Your task to perform on an android device: Open internet settings Image 0: 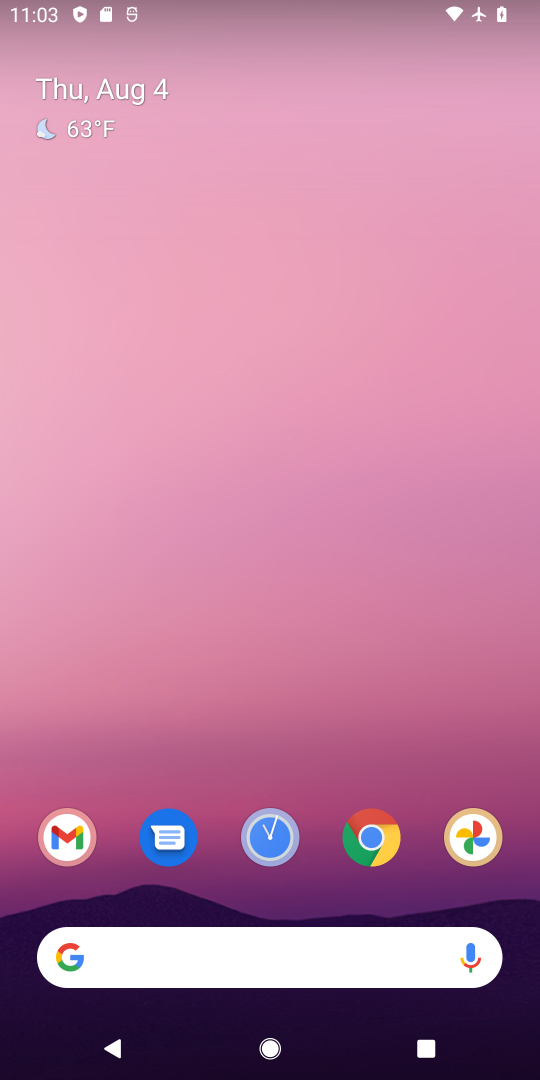
Step 0: press home button
Your task to perform on an android device: Open internet settings Image 1: 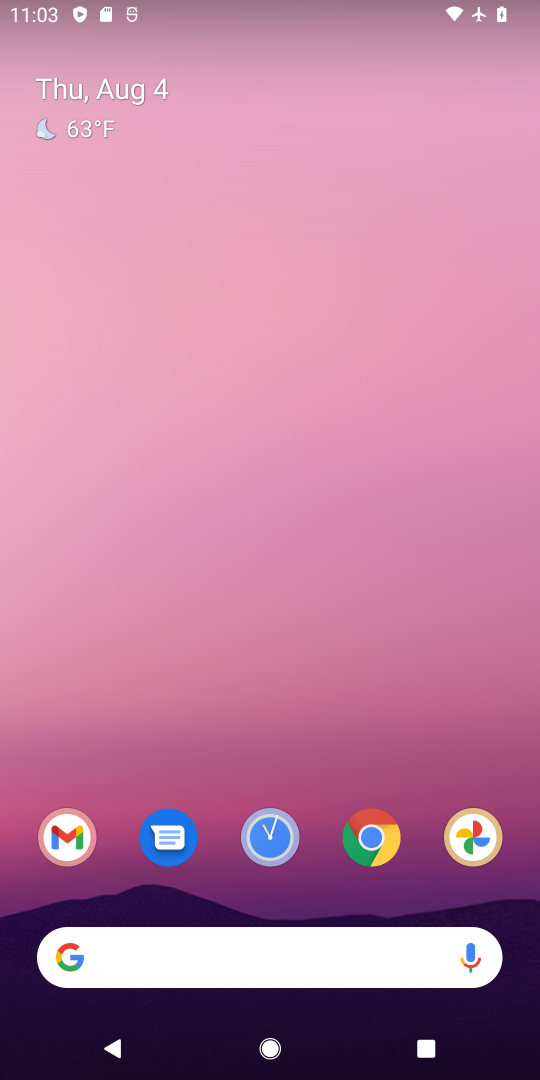
Step 1: drag from (324, 890) to (397, 68)
Your task to perform on an android device: Open internet settings Image 2: 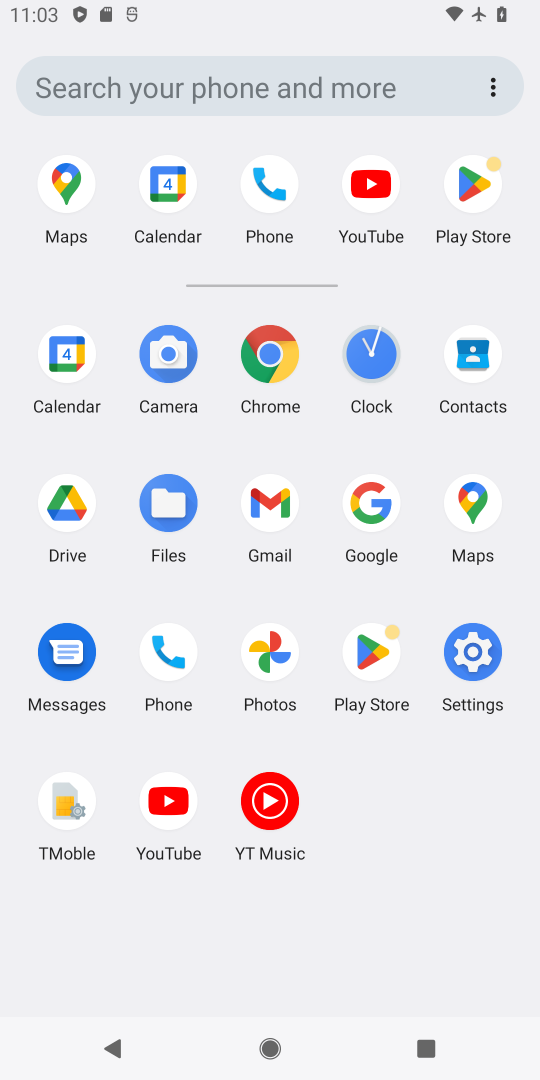
Step 2: click (465, 648)
Your task to perform on an android device: Open internet settings Image 3: 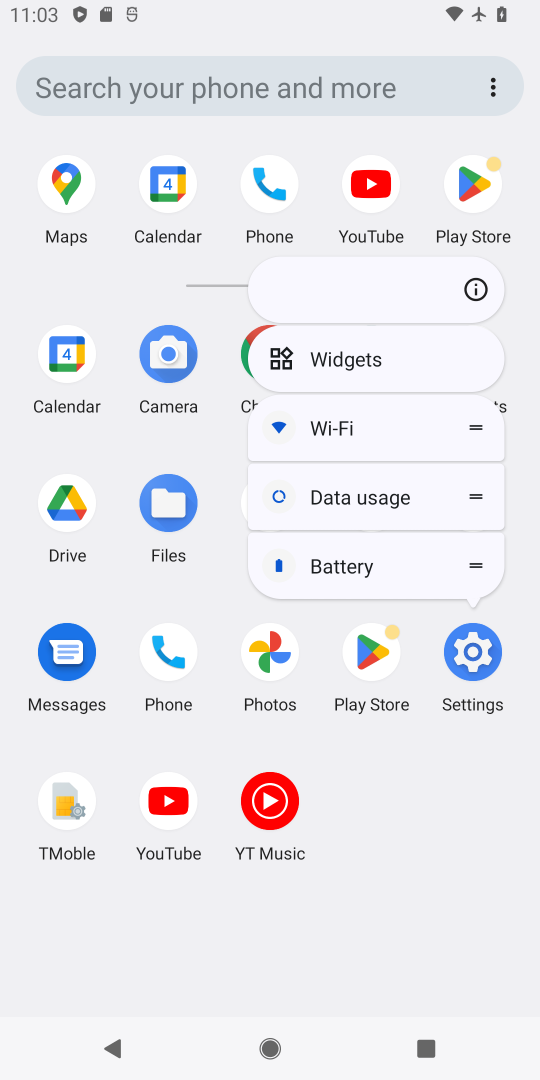
Step 3: click (471, 645)
Your task to perform on an android device: Open internet settings Image 4: 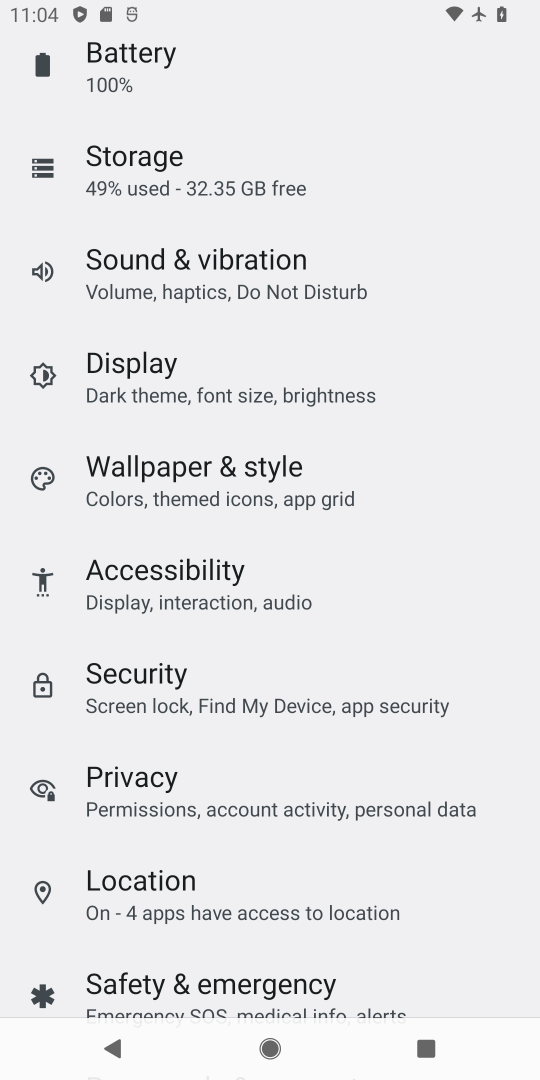
Step 4: drag from (288, 109) to (266, 1032)
Your task to perform on an android device: Open internet settings Image 5: 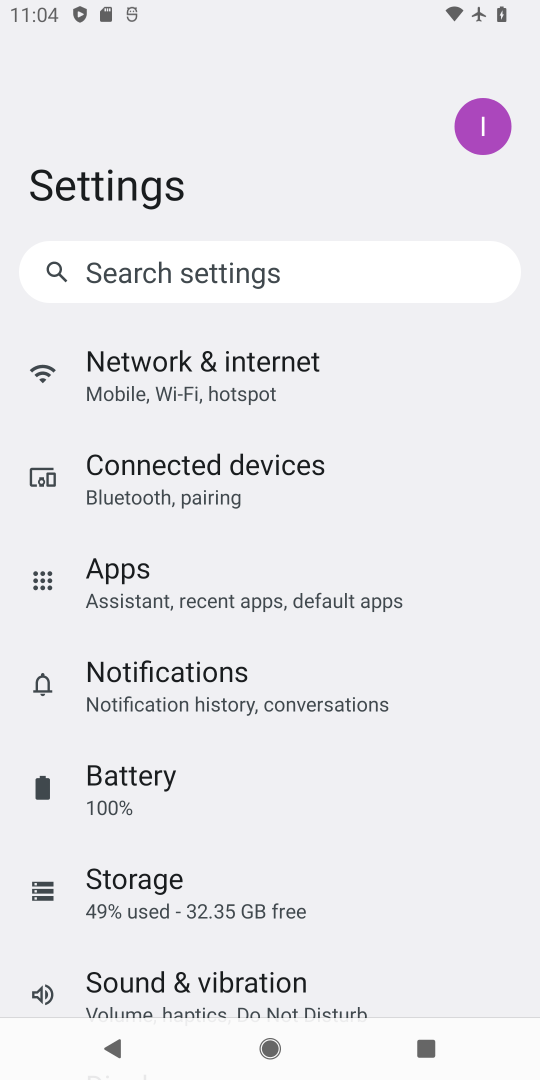
Step 5: click (248, 381)
Your task to perform on an android device: Open internet settings Image 6: 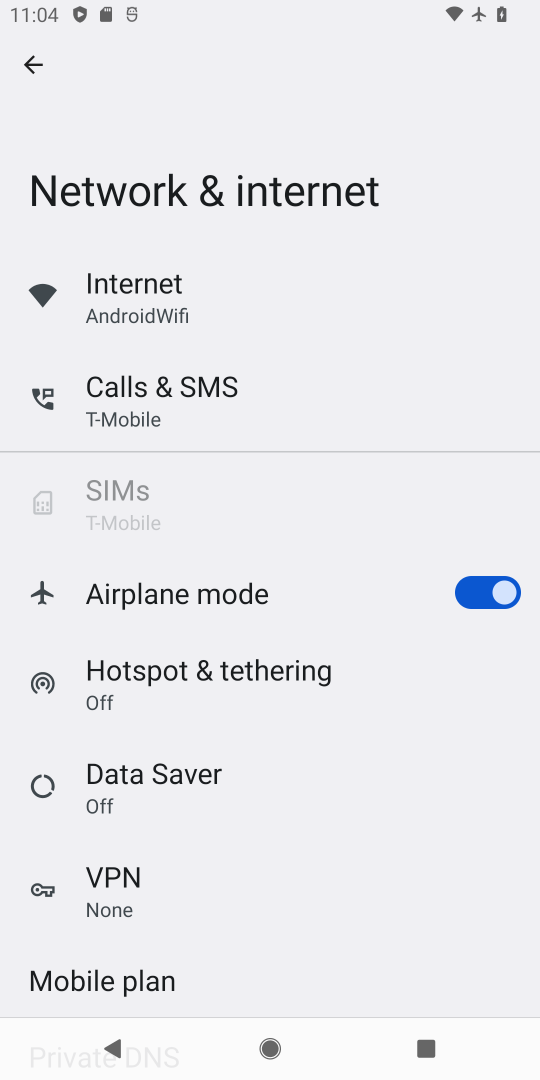
Step 6: drag from (209, 808) to (211, 928)
Your task to perform on an android device: Open internet settings Image 7: 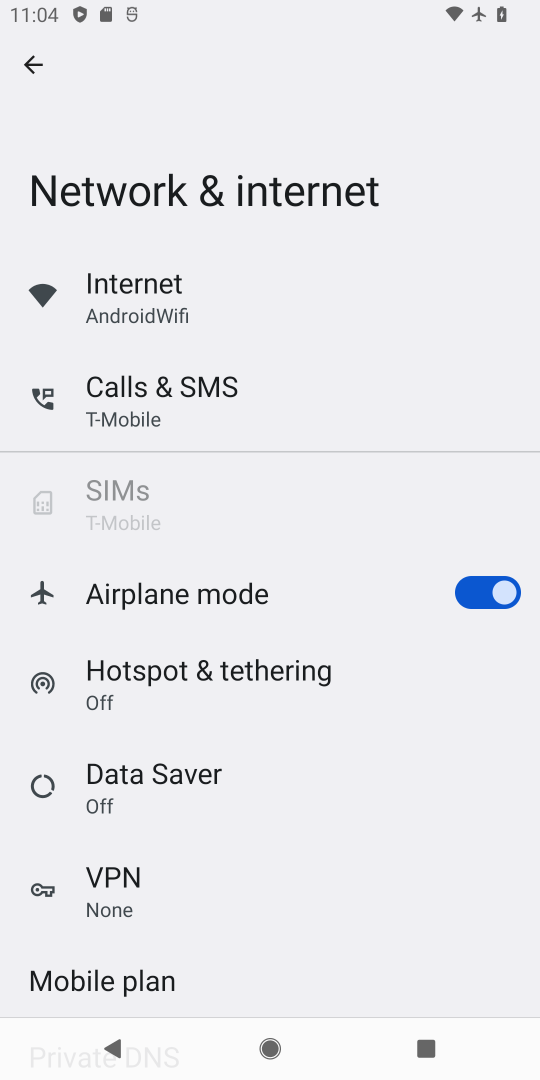
Step 7: click (210, 287)
Your task to perform on an android device: Open internet settings Image 8: 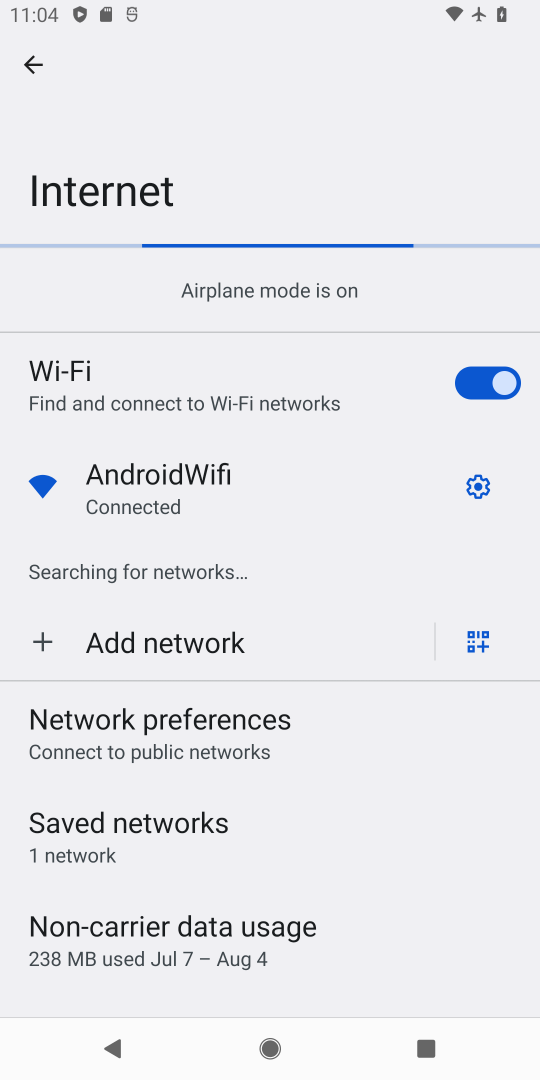
Step 8: task complete